Your task to perform on an android device: turn on location history Image 0: 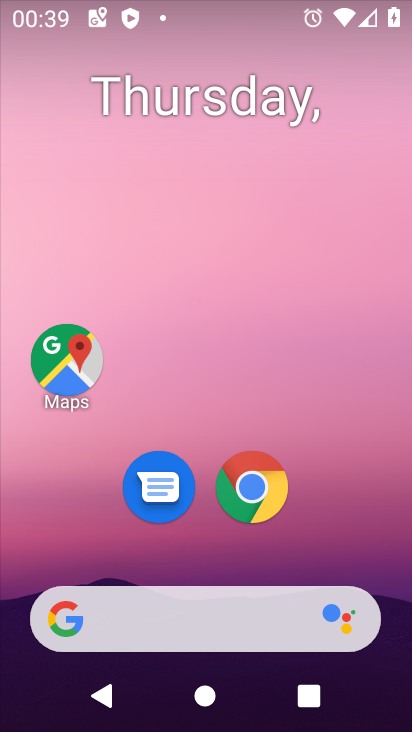
Step 0: click (64, 368)
Your task to perform on an android device: turn on location history Image 1: 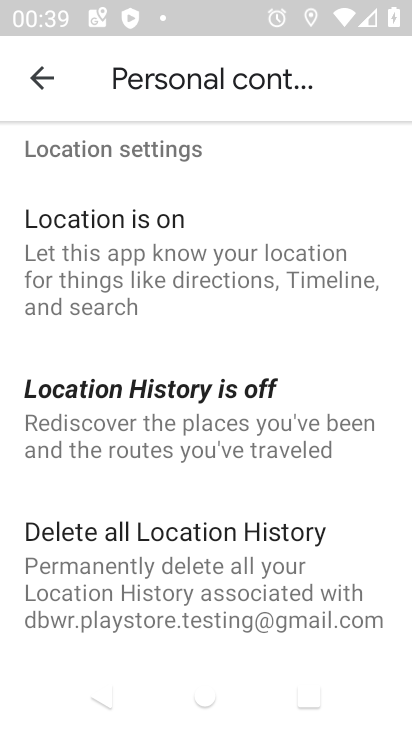
Step 1: click (122, 420)
Your task to perform on an android device: turn on location history Image 2: 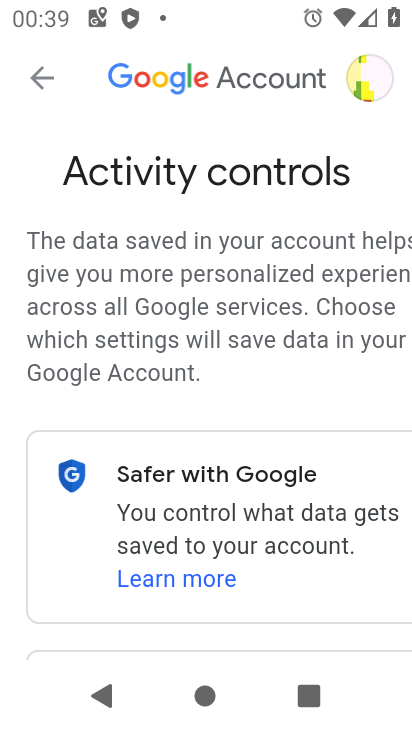
Step 2: task complete